Your task to perform on an android device: check storage Image 0: 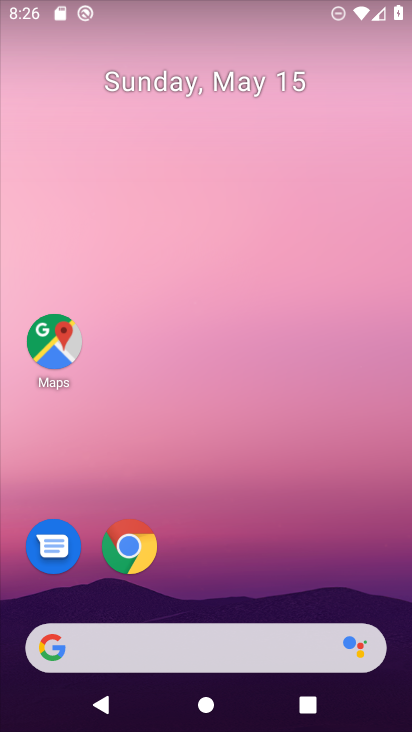
Step 0: drag from (259, 503) to (309, 51)
Your task to perform on an android device: check storage Image 1: 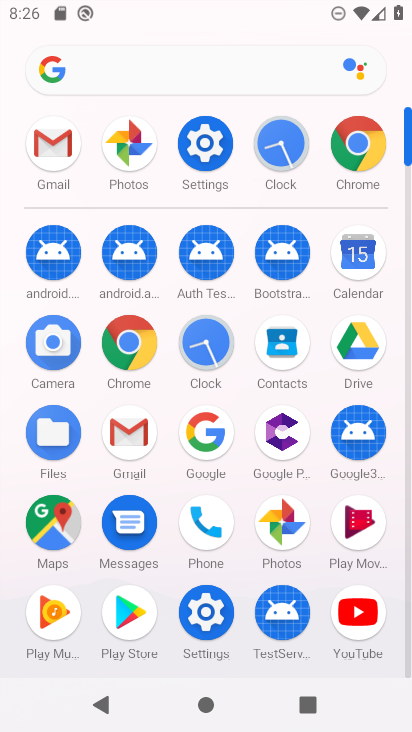
Step 1: click (202, 150)
Your task to perform on an android device: check storage Image 2: 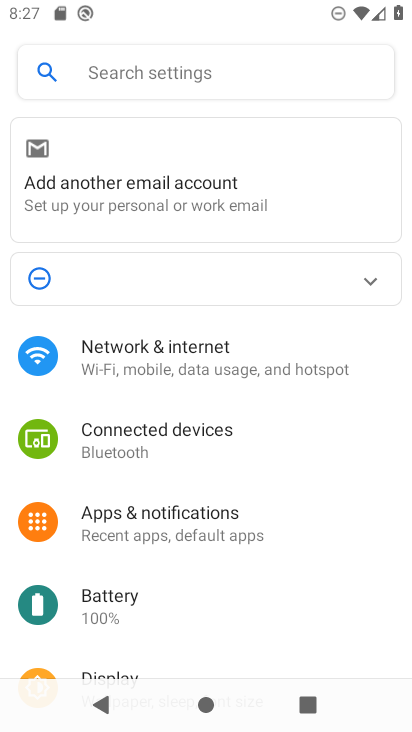
Step 2: drag from (270, 261) to (230, 155)
Your task to perform on an android device: check storage Image 3: 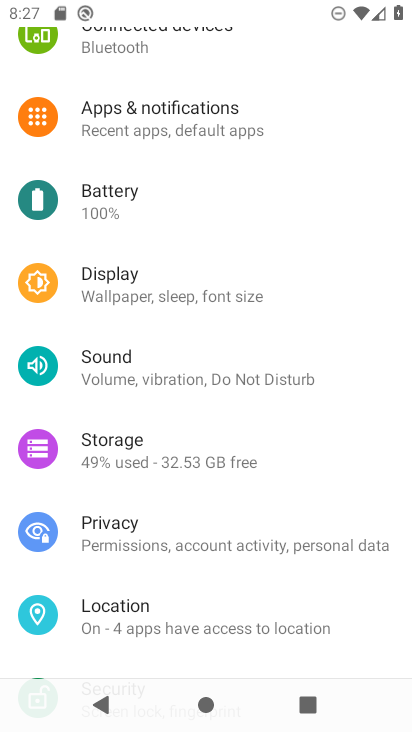
Step 3: click (199, 440)
Your task to perform on an android device: check storage Image 4: 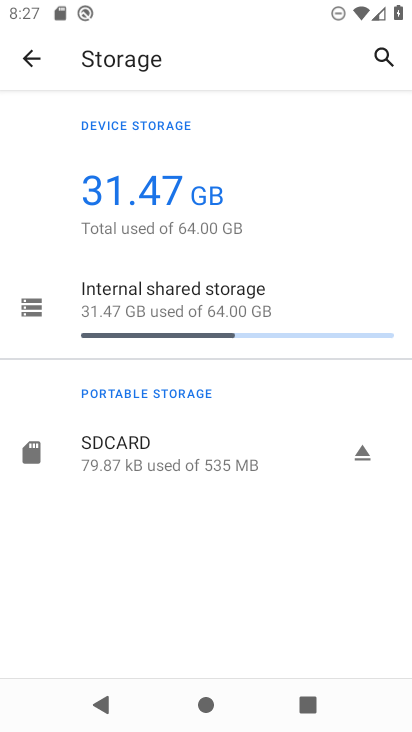
Step 4: task complete